Your task to perform on an android device: check storage Image 0: 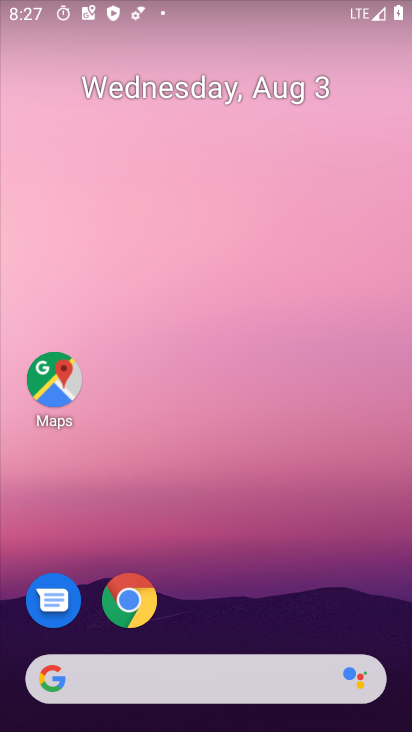
Step 0: drag from (241, 618) to (296, 10)
Your task to perform on an android device: check storage Image 1: 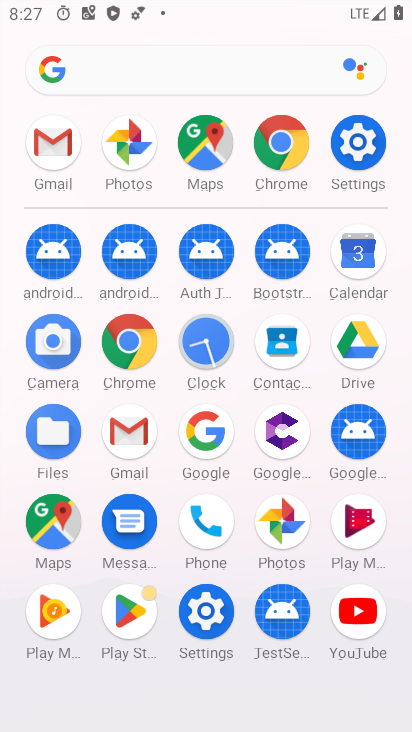
Step 1: click (210, 639)
Your task to perform on an android device: check storage Image 2: 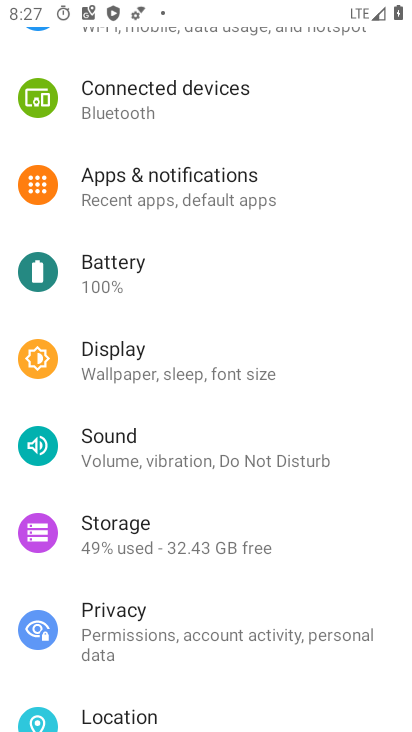
Step 2: click (140, 545)
Your task to perform on an android device: check storage Image 3: 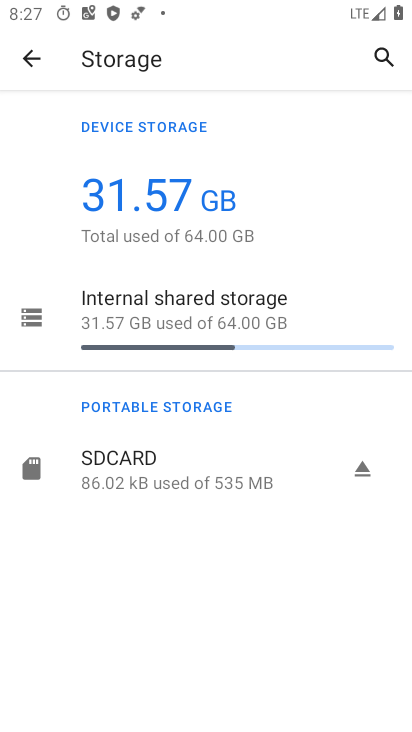
Step 3: click (188, 320)
Your task to perform on an android device: check storage Image 4: 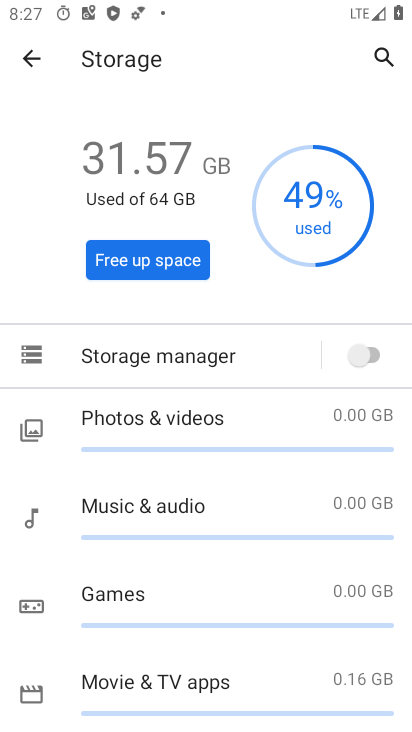
Step 4: task complete